Your task to perform on an android device: Show me the alarms in the clock app Image 0: 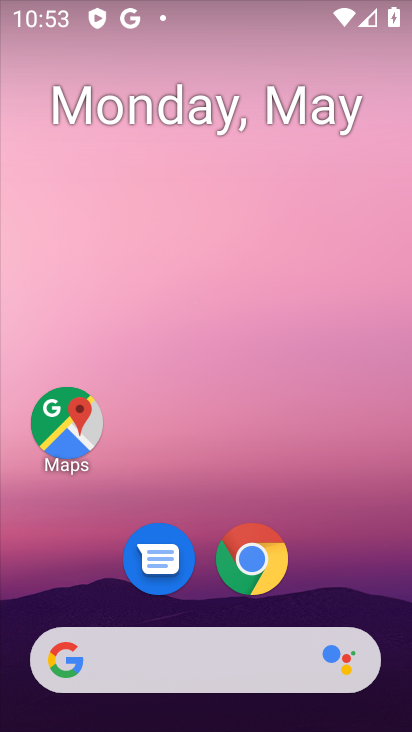
Step 0: drag from (74, 600) to (190, 159)
Your task to perform on an android device: Show me the alarms in the clock app Image 1: 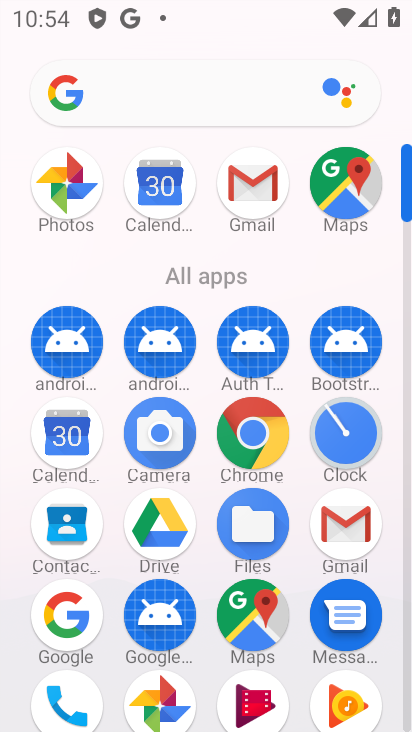
Step 1: click (363, 447)
Your task to perform on an android device: Show me the alarms in the clock app Image 2: 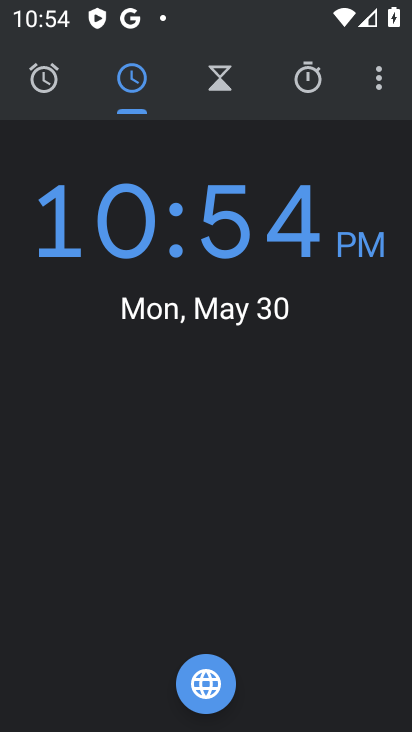
Step 2: click (55, 102)
Your task to perform on an android device: Show me the alarms in the clock app Image 3: 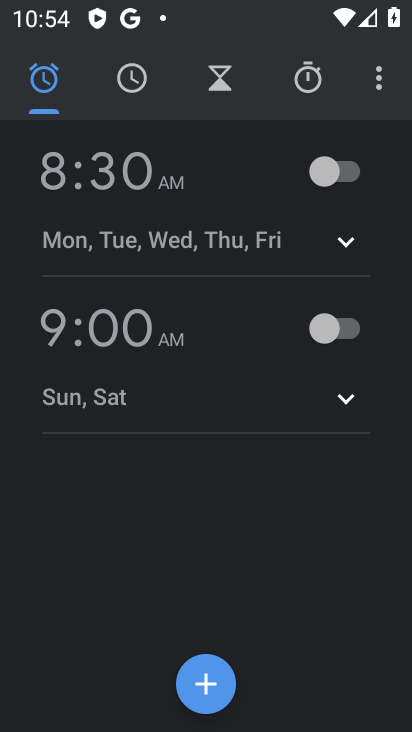
Step 3: task complete